Your task to perform on an android device: Search for seafood restaurants on Google Maps Image 0: 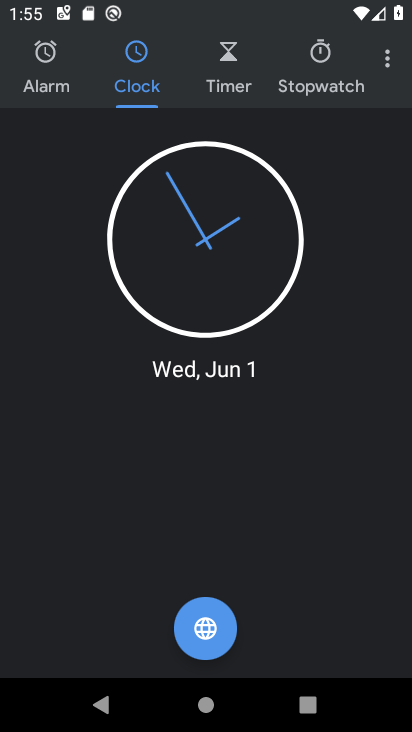
Step 0: press home button
Your task to perform on an android device: Search for seafood restaurants on Google Maps Image 1: 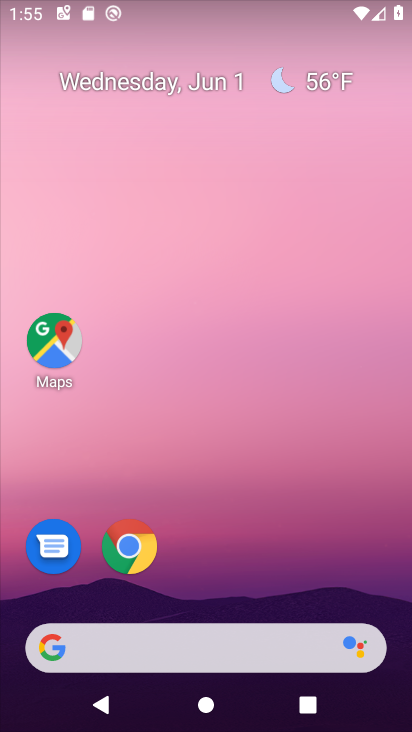
Step 1: click (59, 344)
Your task to perform on an android device: Search for seafood restaurants on Google Maps Image 2: 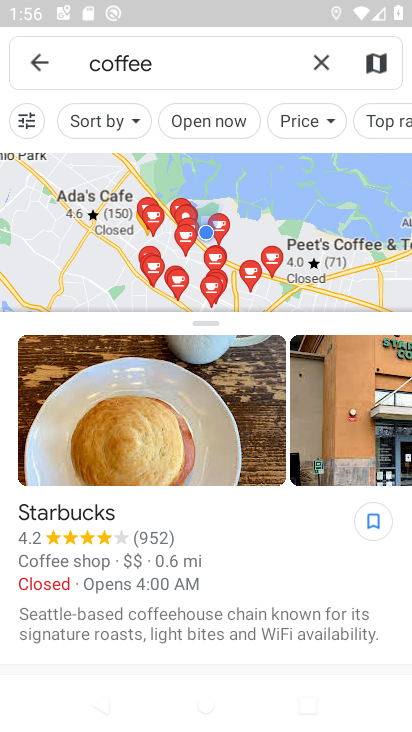
Step 2: click (321, 66)
Your task to perform on an android device: Search for seafood restaurants on Google Maps Image 3: 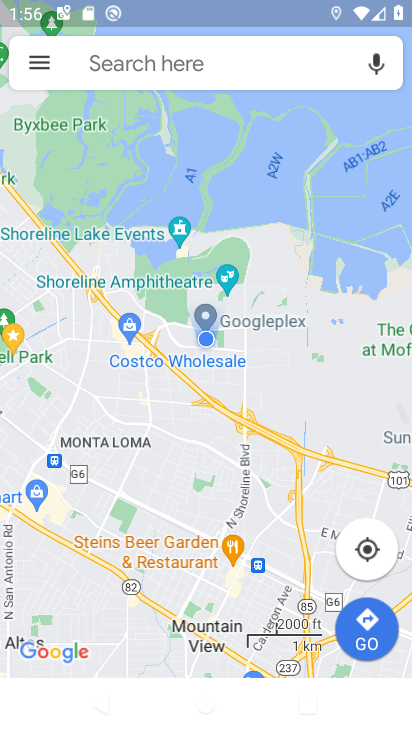
Step 3: click (257, 69)
Your task to perform on an android device: Search for seafood restaurants on Google Maps Image 4: 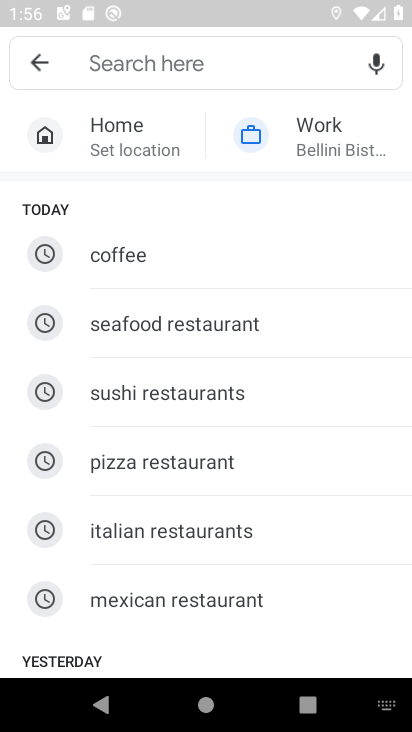
Step 4: click (197, 337)
Your task to perform on an android device: Search for seafood restaurants on Google Maps Image 5: 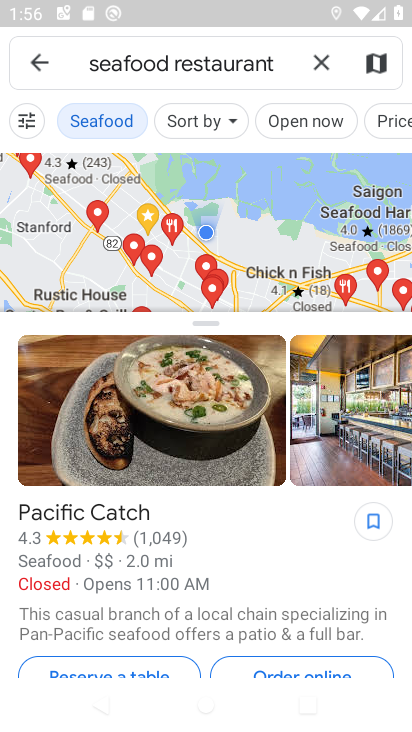
Step 5: task complete